Your task to perform on an android device: Open privacy settings Image 0: 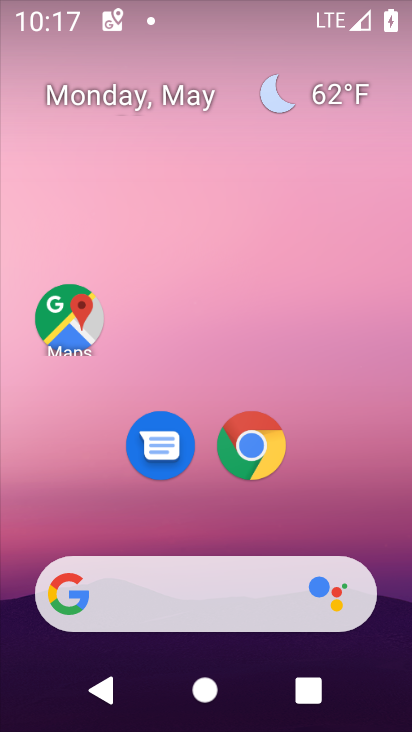
Step 0: drag from (402, 612) to (227, 63)
Your task to perform on an android device: Open privacy settings Image 1: 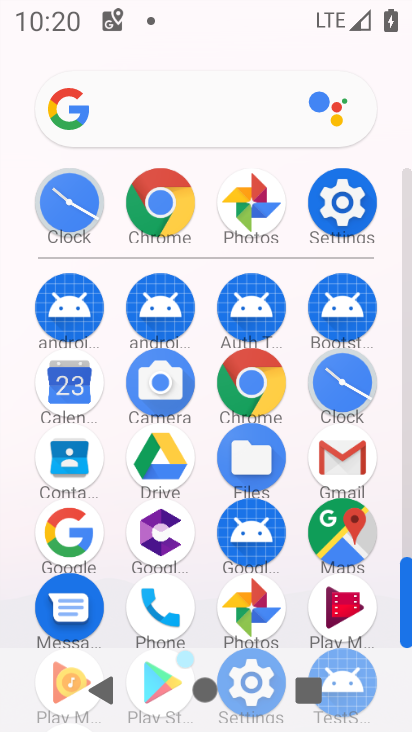
Step 1: click (339, 217)
Your task to perform on an android device: Open privacy settings Image 2: 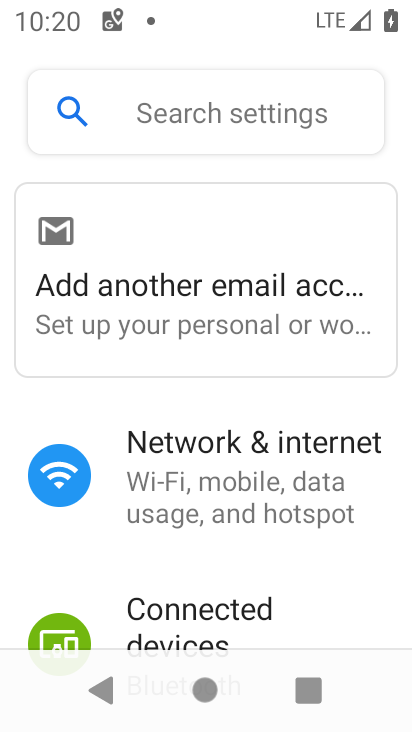
Step 2: drag from (220, 589) to (140, 56)
Your task to perform on an android device: Open privacy settings Image 3: 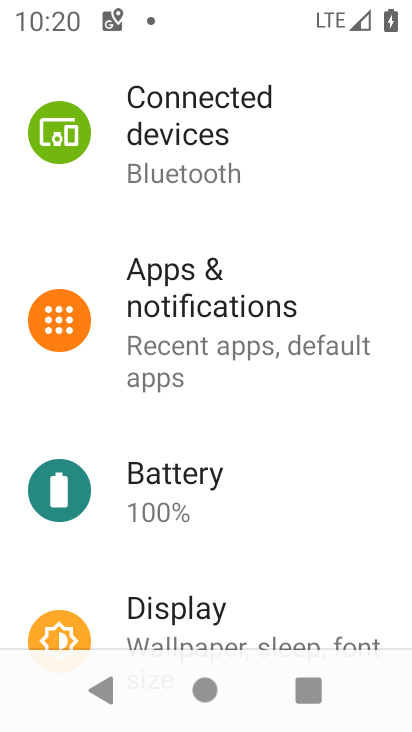
Step 3: drag from (190, 497) to (216, 77)
Your task to perform on an android device: Open privacy settings Image 4: 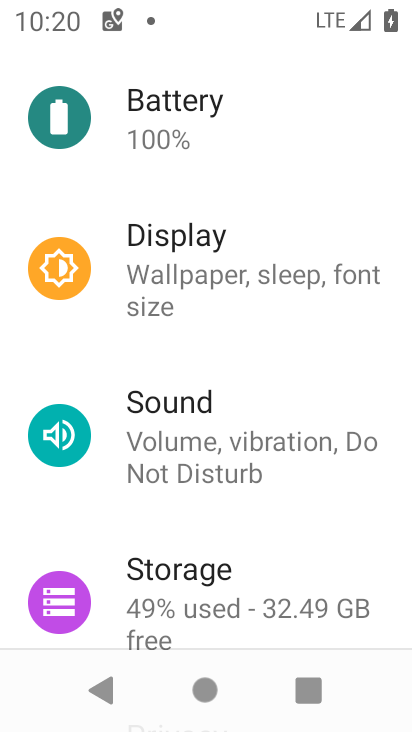
Step 4: drag from (199, 560) to (270, 102)
Your task to perform on an android device: Open privacy settings Image 5: 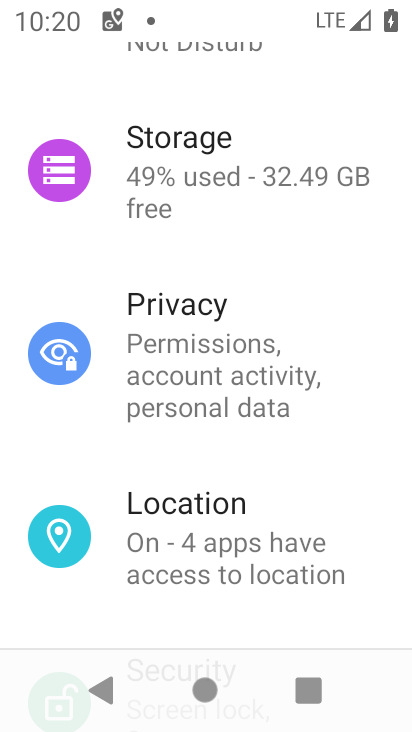
Step 5: click (289, 355)
Your task to perform on an android device: Open privacy settings Image 6: 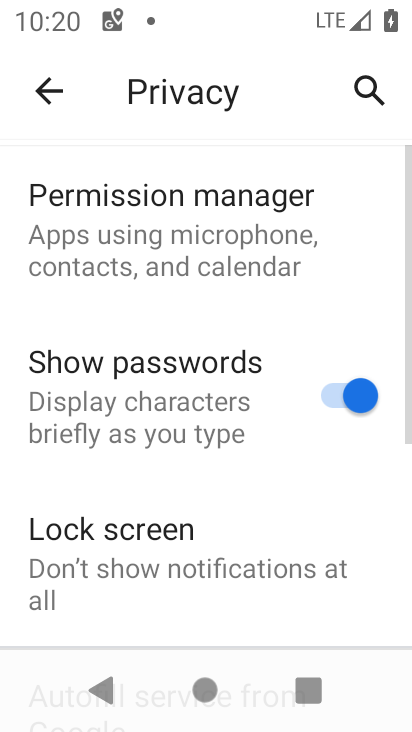
Step 6: task complete